Your task to perform on an android device: turn off wifi Image 0: 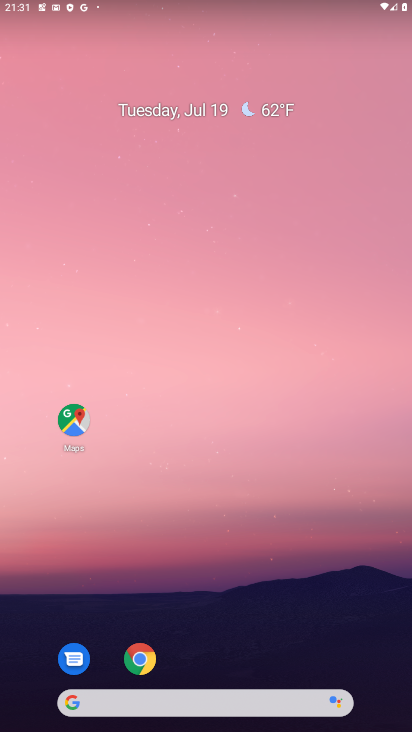
Step 0: press home button
Your task to perform on an android device: turn off wifi Image 1: 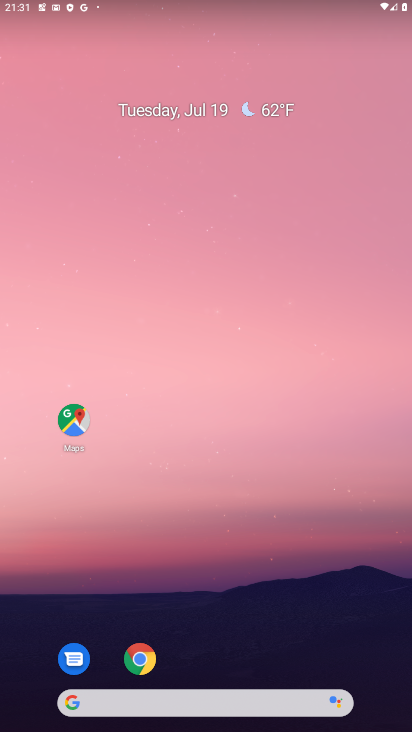
Step 1: drag from (277, 8) to (279, 535)
Your task to perform on an android device: turn off wifi Image 2: 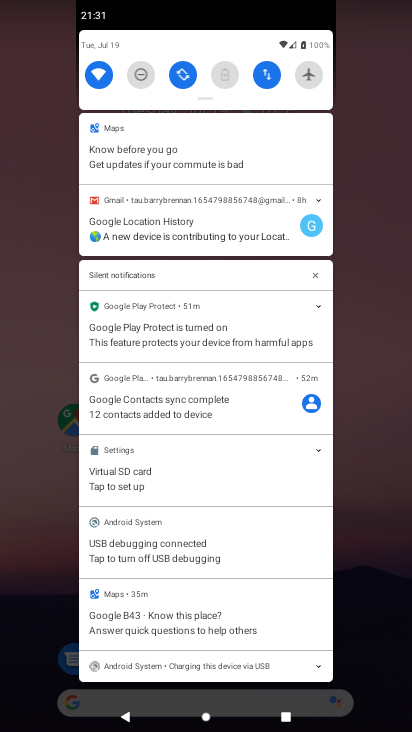
Step 2: click (108, 71)
Your task to perform on an android device: turn off wifi Image 3: 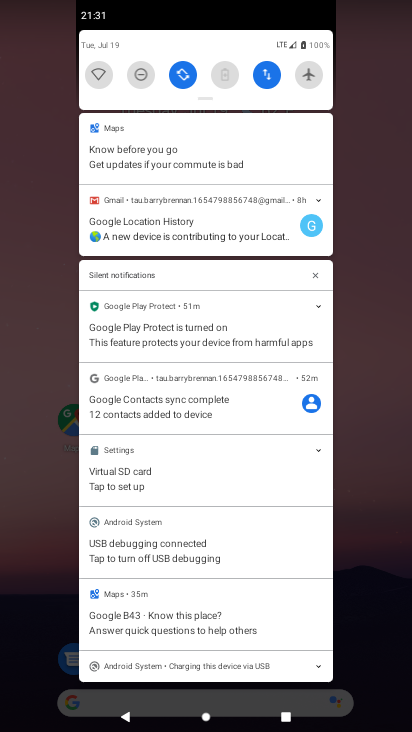
Step 3: task complete